Your task to perform on an android device: open sync settings in chrome Image 0: 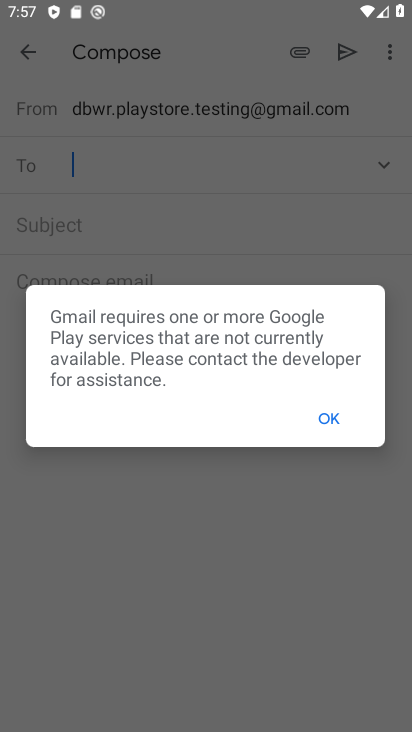
Step 0: press home button
Your task to perform on an android device: open sync settings in chrome Image 1: 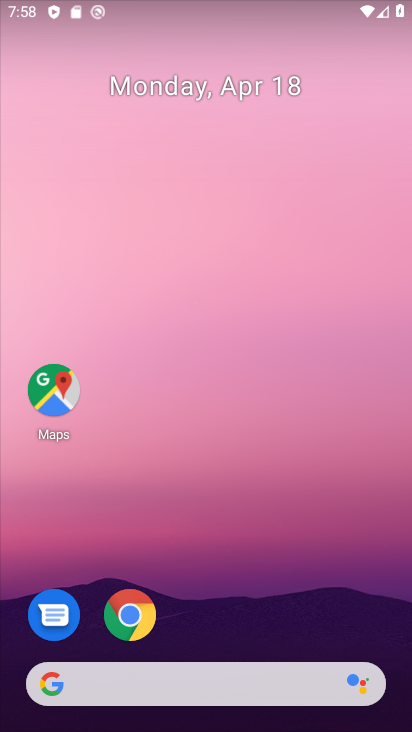
Step 1: click (136, 611)
Your task to perform on an android device: open sync settings in chrome Image 2: 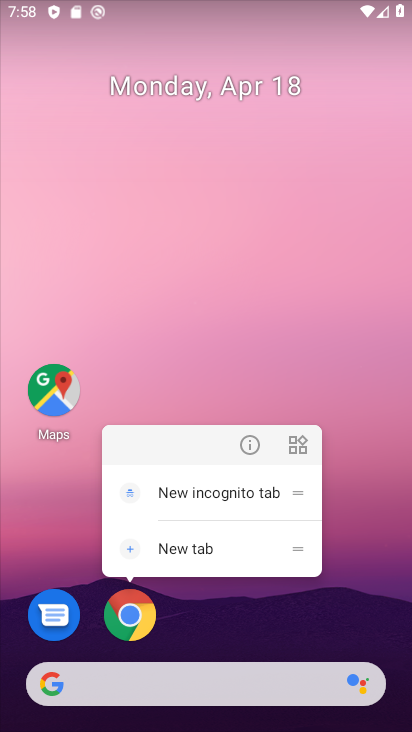
Step 2: click (136, 611)
Your task to perform on an android device: open sync settings in chrome Image 3: 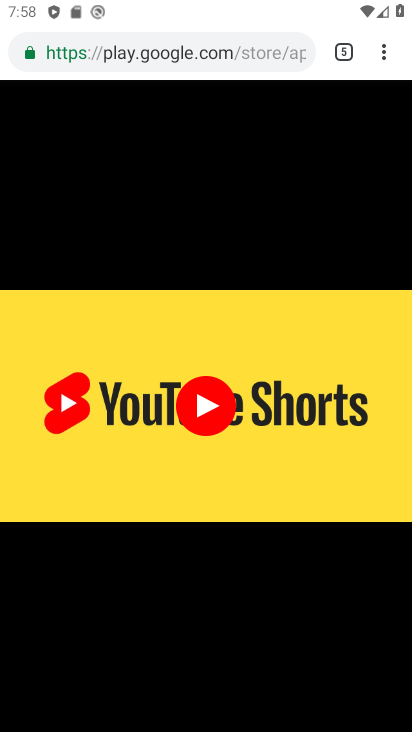
Step 3: click (386, 48)
Your task to perform on an android device: open sync settings in chrome Image 4: 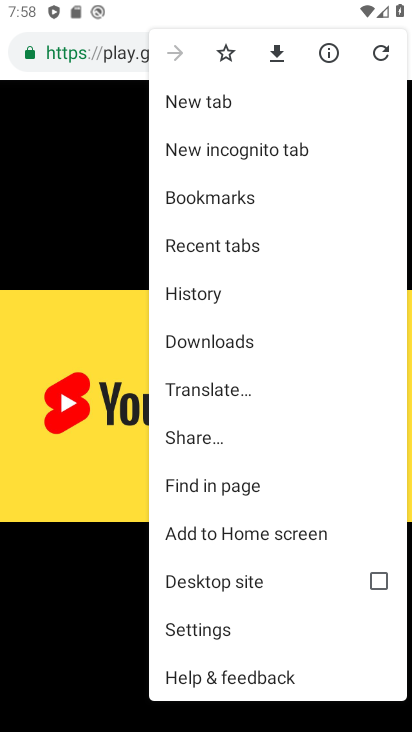
Step 4: click (250, 628)
Your task to perform on an android device: open sync settings in chrome Image 5: 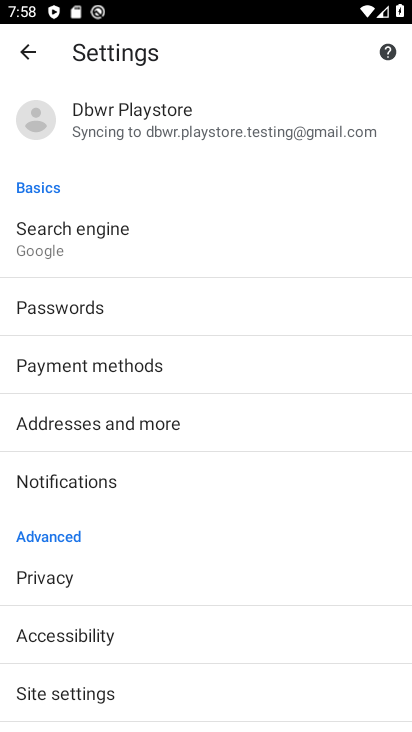
Step 5: click (220, 108)
Your task to perform on an android device: open sync settings in chrome Image 6: 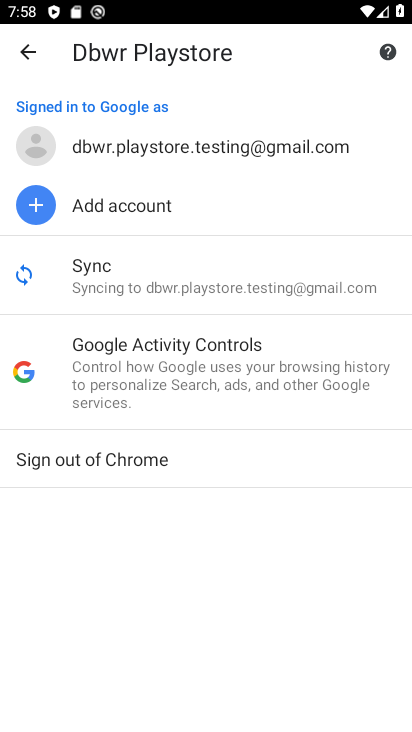
Step 6: click (173, 286)
Your task to perform on an android device: open sync settings in chrome Image 7: 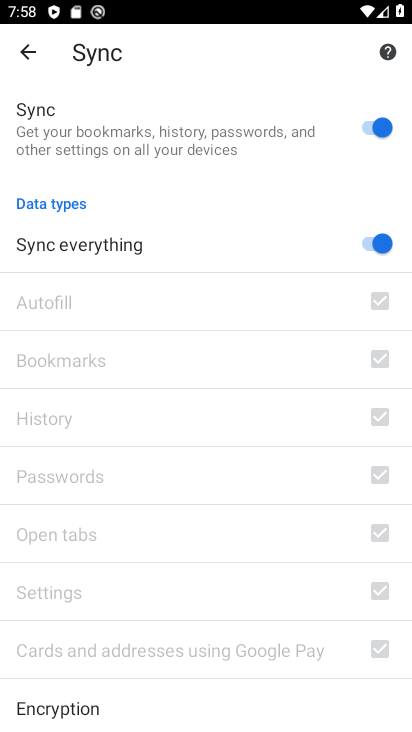
Step 7: task complete